Your task to perform on an android device: turn off notifications in google photos Image 0: 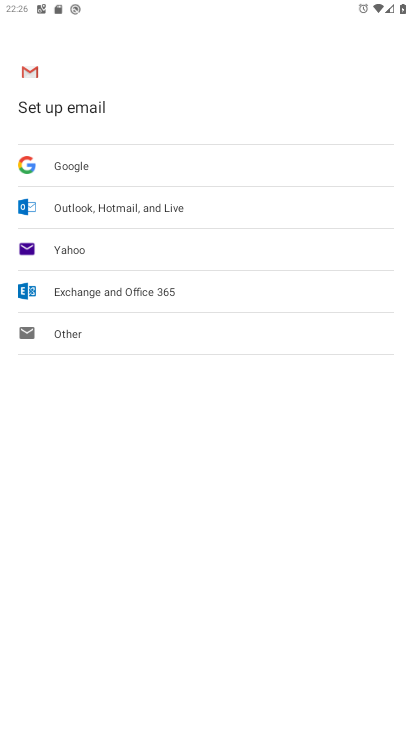
Step 0: press home button
Your task to perform on an android device: turn off notifications in google photos Image 1: 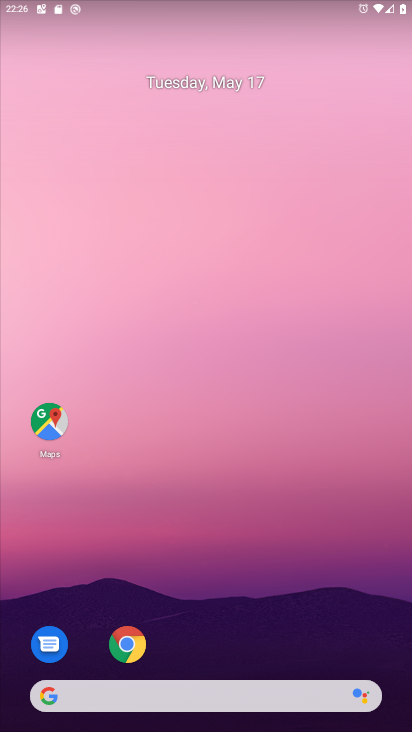
Step 1: drag from (182, 643) to (269, 119)
Your task to perform on an android device: turn off notifications in google photos Image 2: 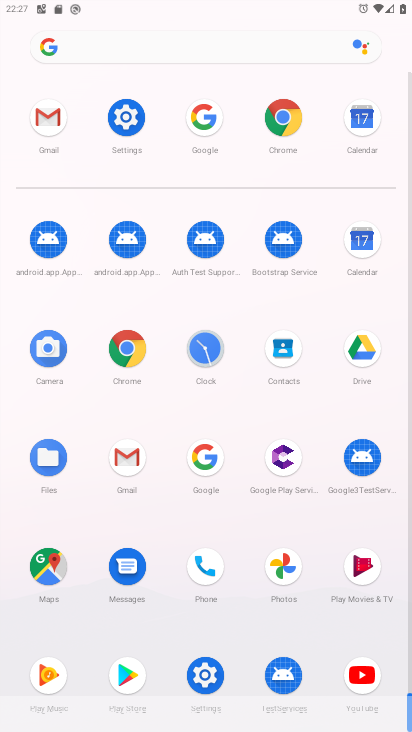
Step 2: click (289, 566)
Your task to perform on an android device: turn off notifications in google photos Image 3: 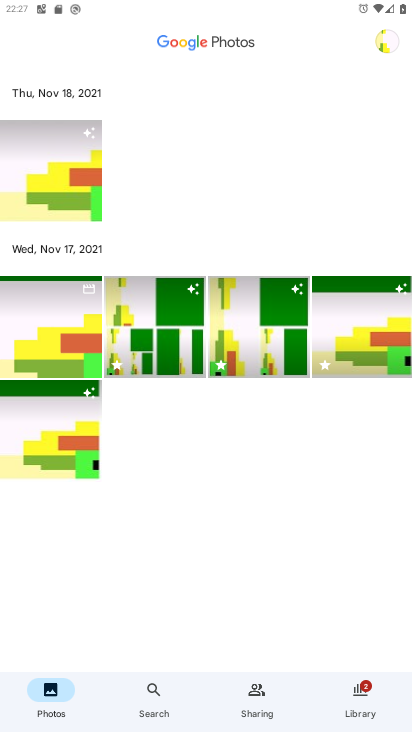
Step 3: click (382, 38)
Your task to perform on an android device: turn off notifications in google photos Image 4: 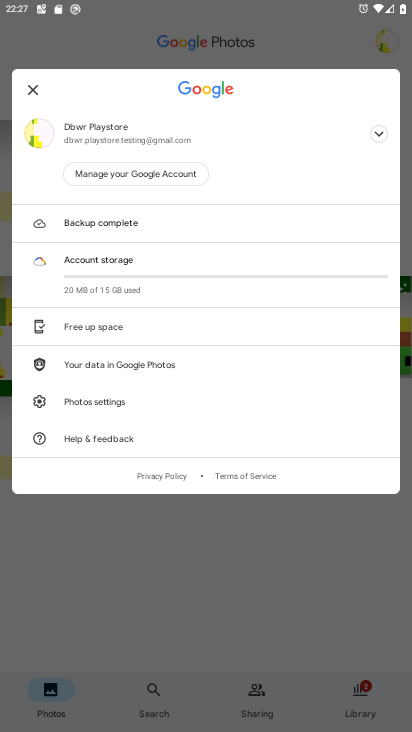
Step 4: click (127, 217)
Your task to perform on an android device: turn off notifications in google photos Image 5: 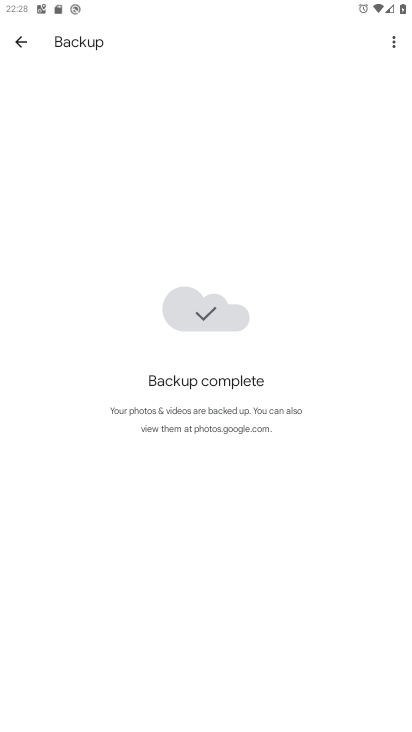
Step 5: click (24, 39)
Your task to perform on an android device: turn off notifications in google photos Image 6: 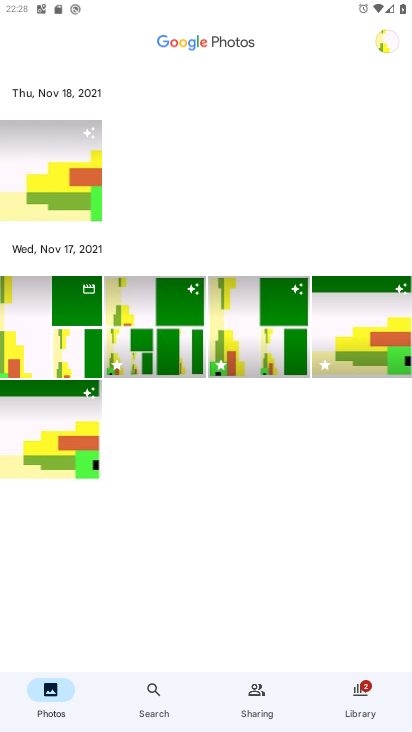
Step 6: click (377, 38)
Your task to perform on an android device: turn off notifications in google photos Image 7: 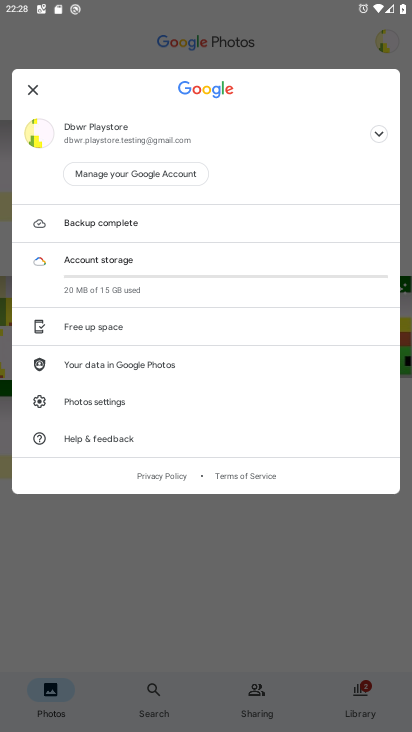
Step 7: click (137, 398)
Your task to perform on an android device: turn off notifications in google photos Image 8: 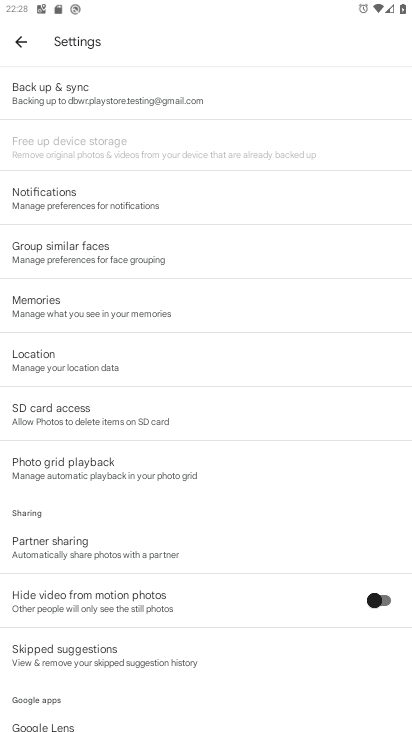
Step 8: click (85, 189)
Your task to perform on an android device: turn off notifications in google photos Image 9: 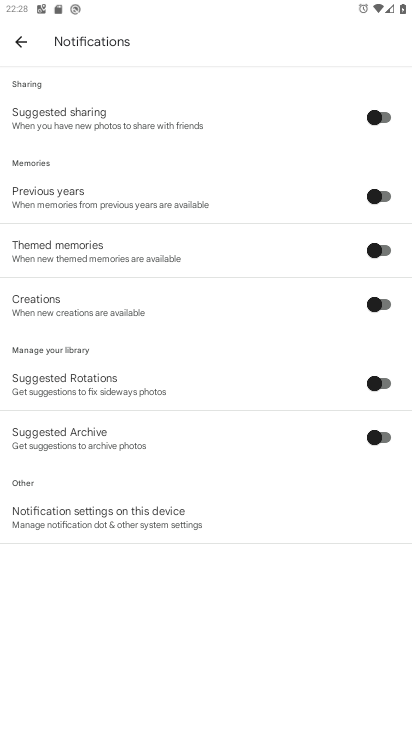
Step 9: click (177, 521)
Your task to perform on an android device: turn off notifications in google photos Image 10: 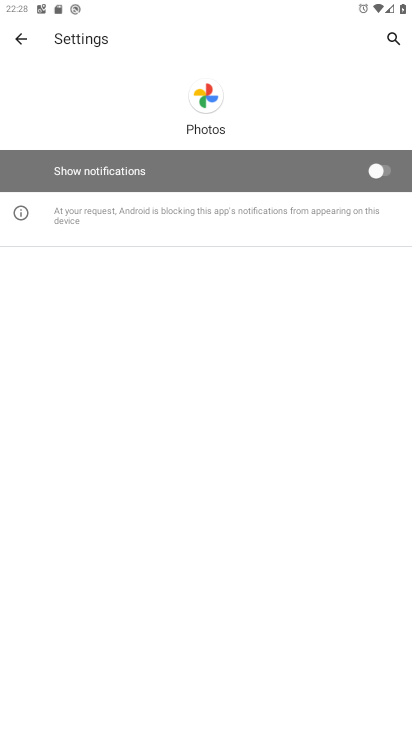
Step 10: task complete